Your task to perform on an android device: Open the calendar and show me this week's events? Image 0: 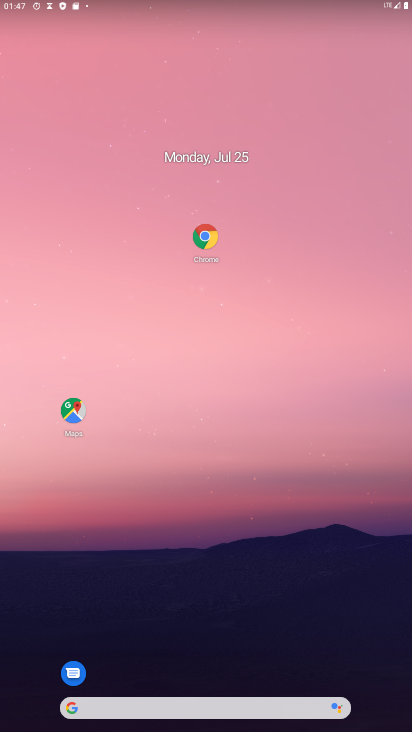
Step 0: drag from (212, 700) to (253, 55)
Your task to perform on an android device: Open the calendar and show me this week's events? Image 1: 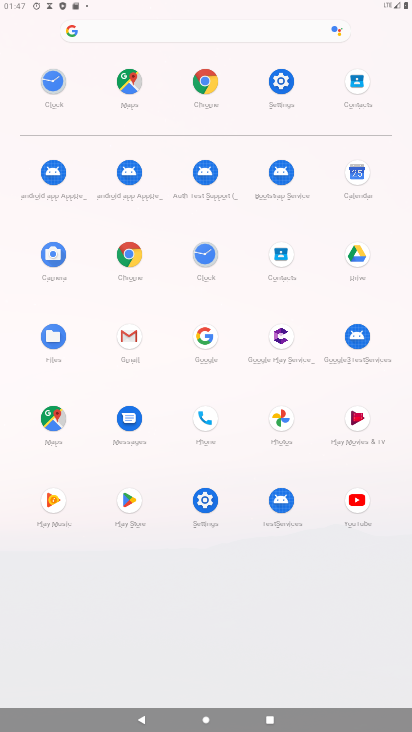
Step 1: click (358, 171)
Your task to perform on an android device: Open the calendar and show me this week's events? Image 2: 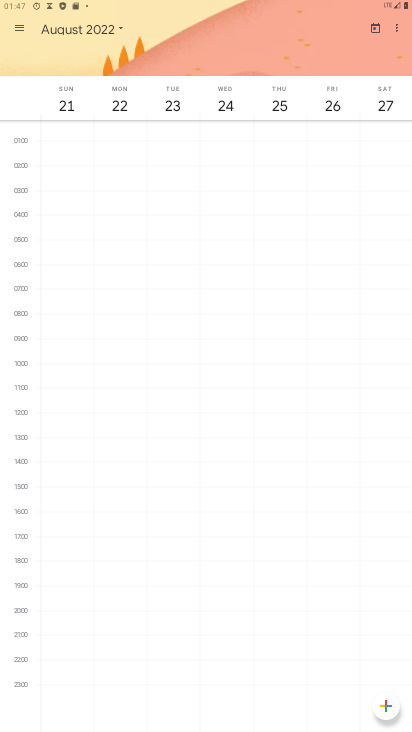
Step 2: click (118, 27)
Your task to perform on an android device: Open the calendar and show me this week's events? Image 3: 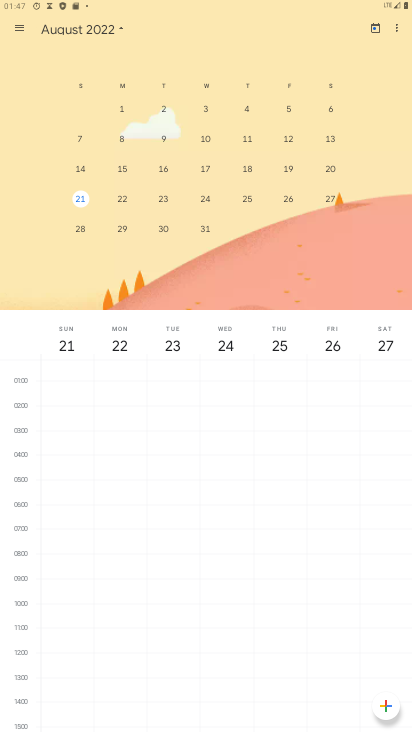
Step 3: drag from (25, 155) to (383, 195)
Your task to perform on an android device: Open the calendar and show me this week's events? Image 4: 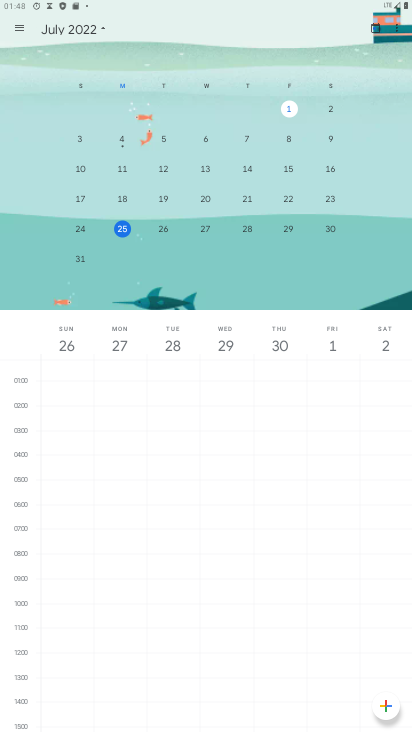
Step 4: click (332, 230)
Your task to perform on an android device: Open the calendar and show me this week's events? Image 5: 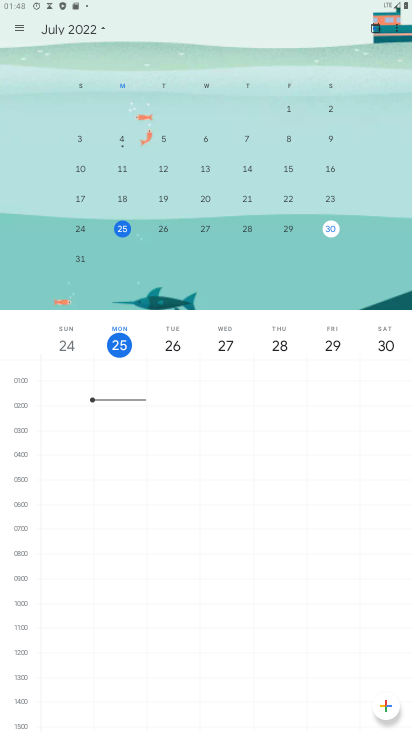
Step 5: task complete